Your task to perform on an android device: change the upload size in google photos Image 0: 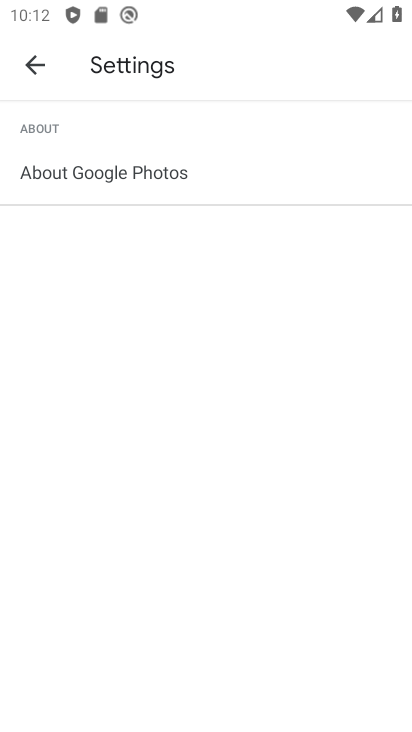
Step 0: press back button
Your task to perform on an android device: change the upload size in google photos Image 1: 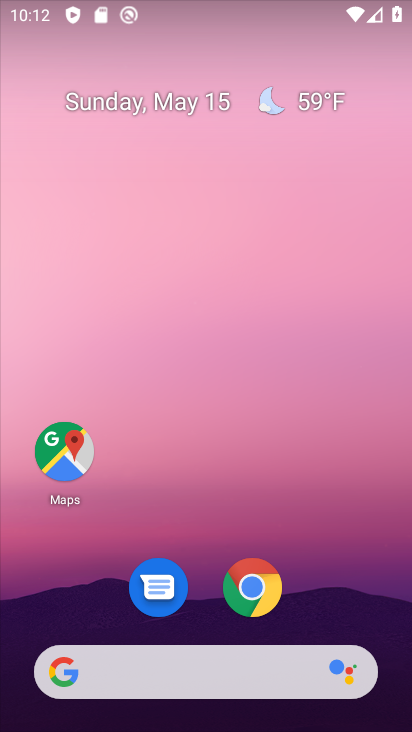
Step 1: drag from (68, 643) to (269, 209)
Your task to perform on an android device: change the upload size in google photos Image 2: 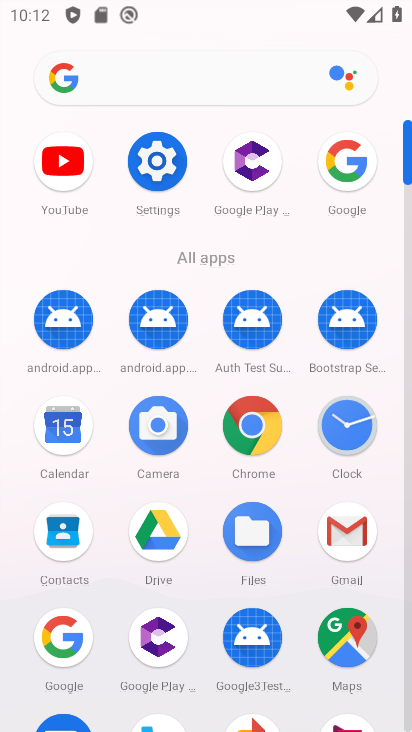
Step 2: drag from (171, 614) to (217, 396)
Your task to perform on an android device: change the upload size in google photos Image 3: 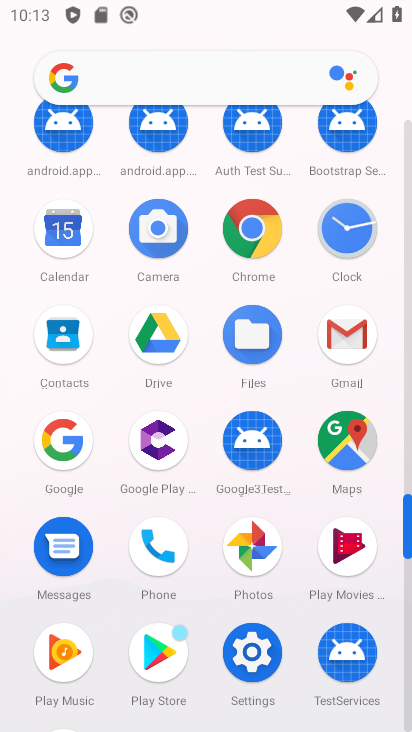
Step 3: click (257, 560)
Your task to perform on an android device: change the upload size in google photos Image 4: 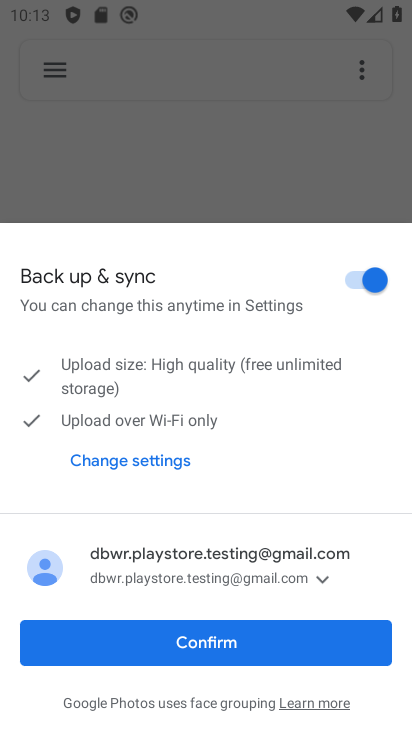
Step 4: click (219, 647)
Your task to perform on an android device: change the upload size in google photos Image 5: 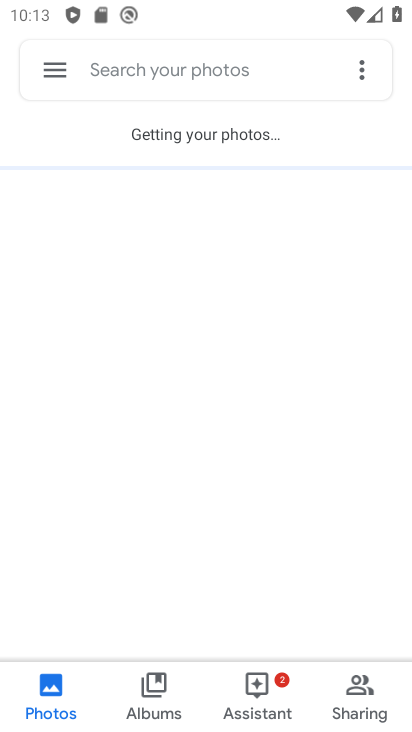
Step 5: click (69, 78)
Your task to perform on an android device: change the upload size in google photos Image 6: 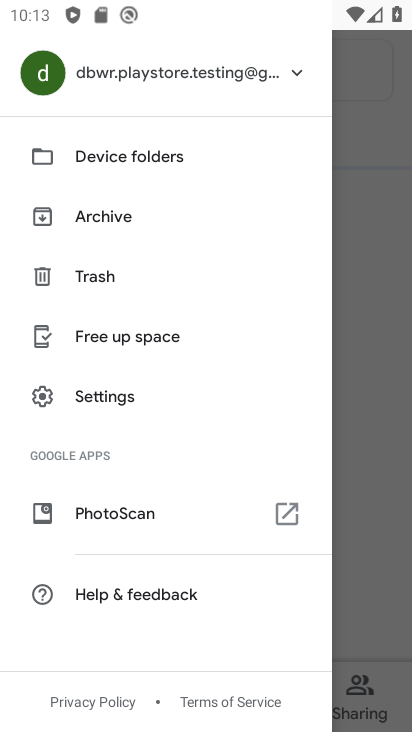
Step 6: click (131, 408)
Your task to perform on an android device: change the upload size in google photos Image 7: 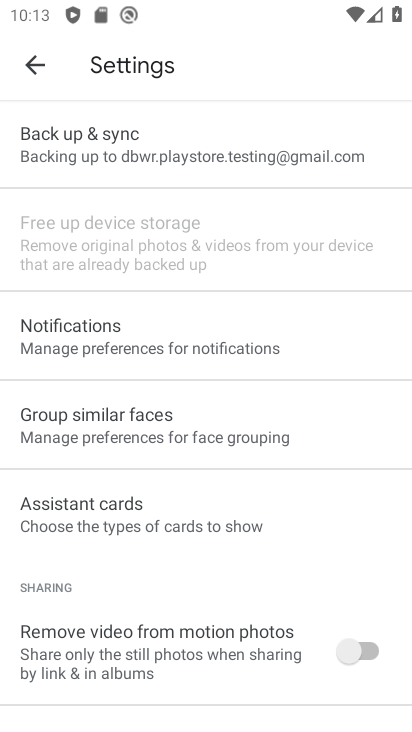
Step 7: click (116, 166)
Your task to perform on an android device: change the upload size in google photos Image 8: 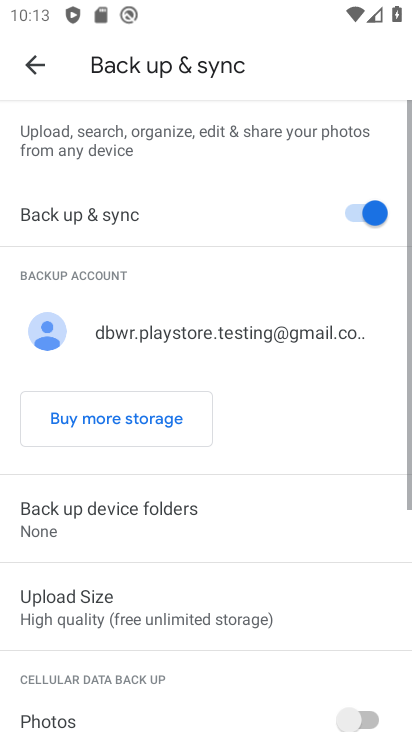
Step 8: drag from (158, 590) to (213, 362)
Your task to perform on an android device: change the upload size in google photos Image 9: 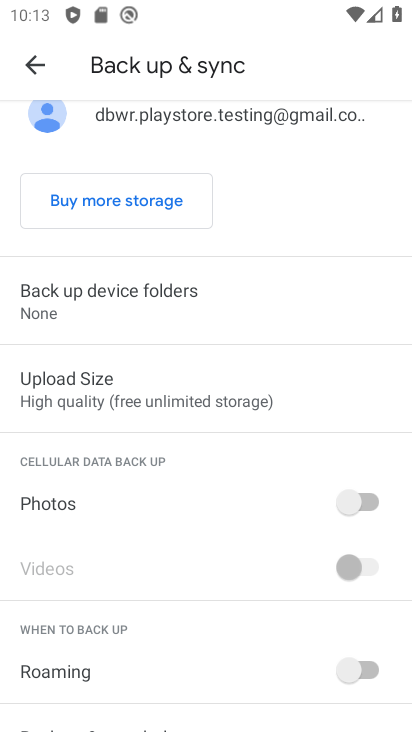
Step 9: click (171, 392)
Your task to perform on an android device: change the upload size in google photos Image 10: 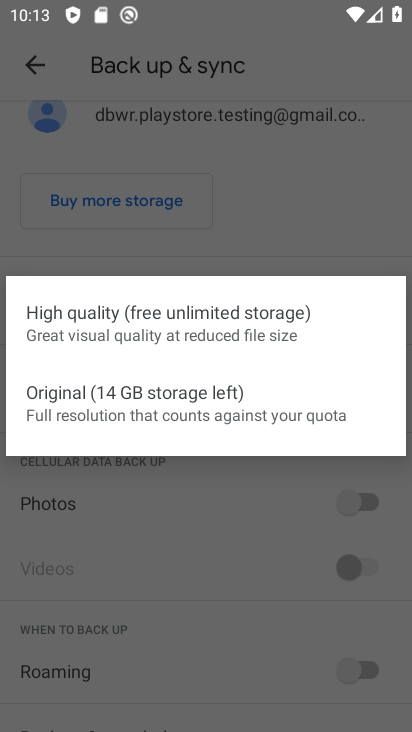
Step 10: click (170, 392)
Your task to perform on an android device: change the upload size in google photos Image 11: 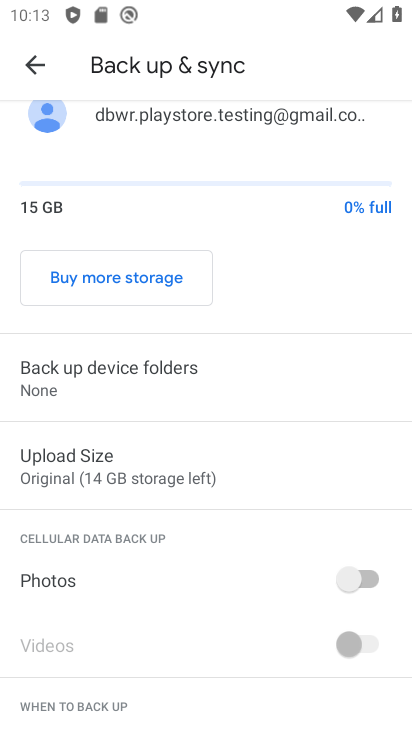
Step 11: task complete